Your task to perform on an android device: turn off wifi Image 0: 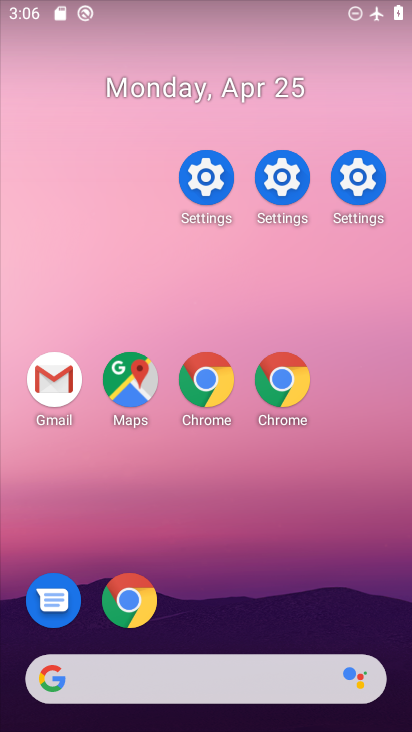
Step 0: drag from (302, 684) to (201, 128)
Your task to perform on an android device: turn off wifi Image 1: 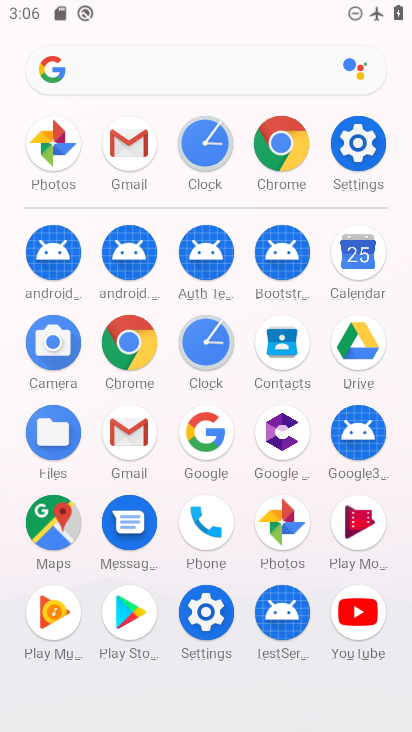
Step 1: click (355, 136)
Your task to perform on an android device: turn off wifi Image 2: 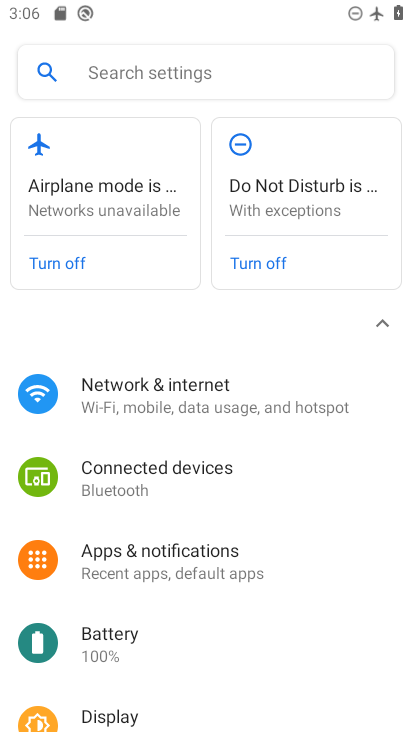
Step 2: click (162, 398)
Your task to perform on an android device: turn off wifi Image 3: 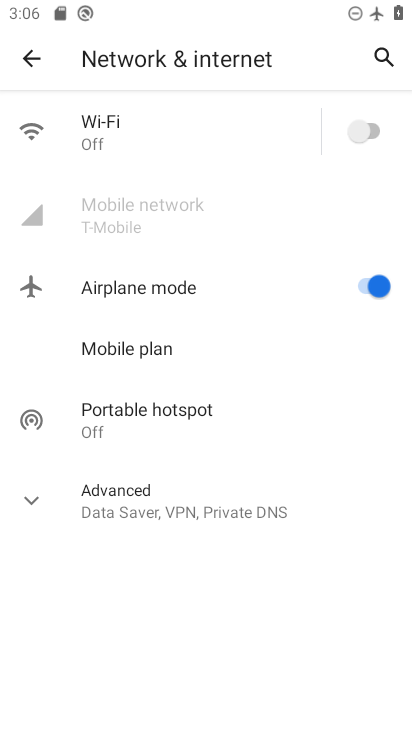
Step 3: task complete